Your task to perform on an android device: change notifications settings Image 0: 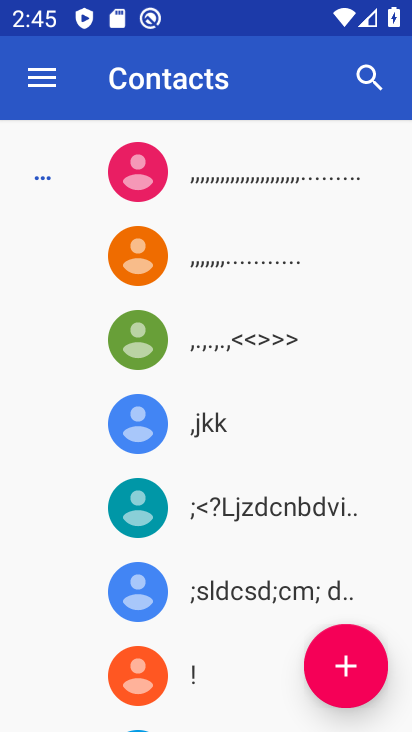
Step 0: press back button
Your task to perform on an android device: change notifications settings Image 1: 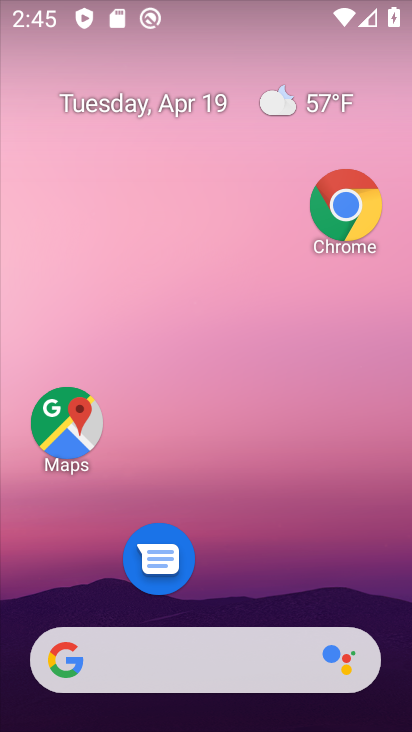
Step 1: drag from (156, 600) to (219, 249)
Your task to perform on an android device: change notifications settings Image 2: 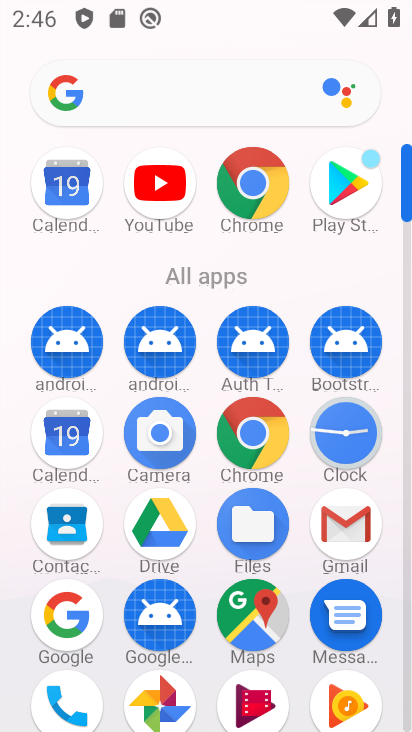
Step 2: drag from (176, 630) to (227, 279)
Your task to perform on an android device: change notifications settings Image 3: 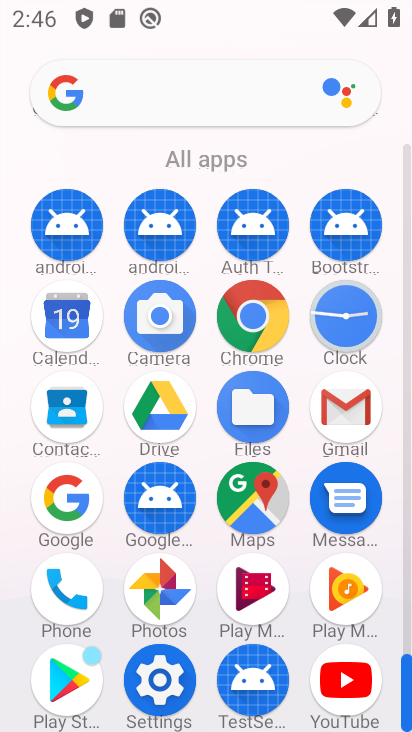
Step 3: click (163, 681)
Your task to perform on an android device: change notifications settings Image 4: 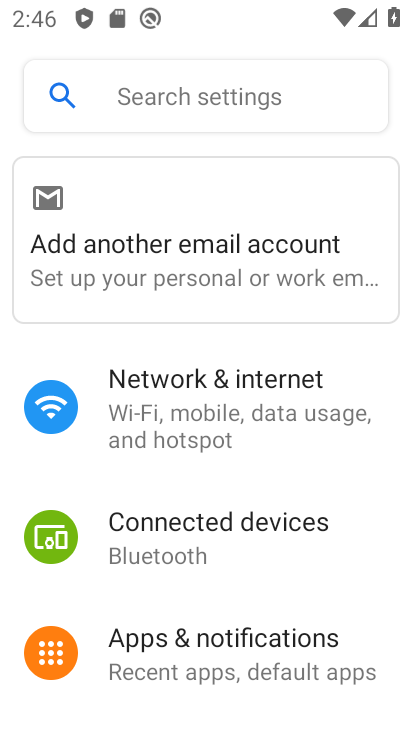
Step 4: click (228, 644)
Your task to perform on an android device: change notifications settings Image 5: 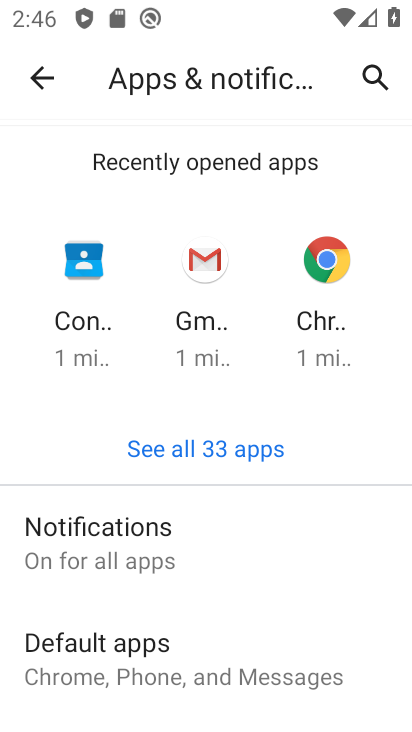
Step 5: click (158, 544)
Your task to perform on an android device: change notifications settings Image 6: 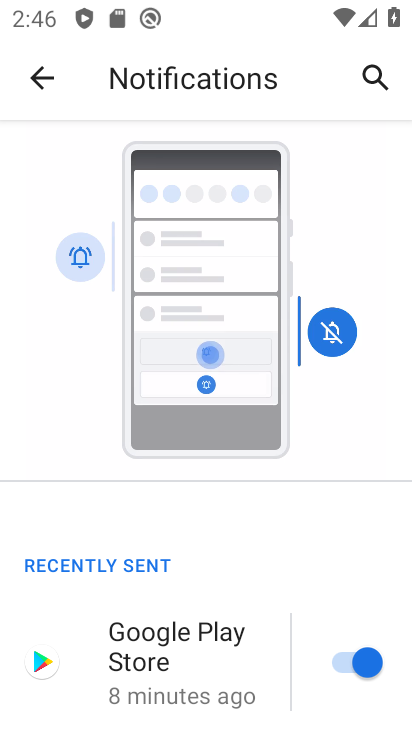
Step 6: drag from (153, 544) to (241, 85)
Your task to perform on an android device: change notifications settings Image 7: 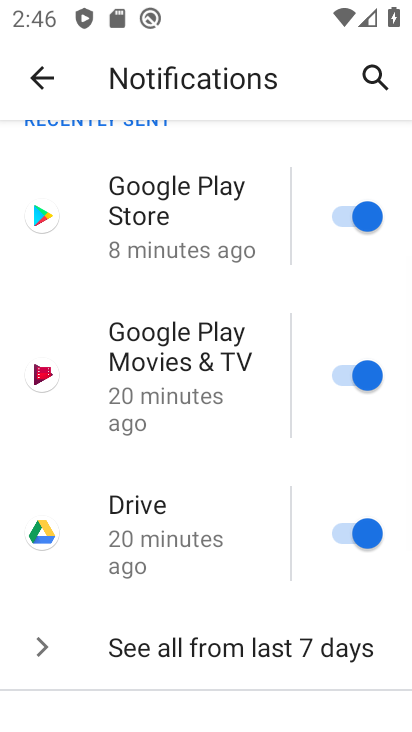
Step 7: drag from (201, 608) to (294, 211)
Your task to perform on an android device: change notifications settings Image 8: 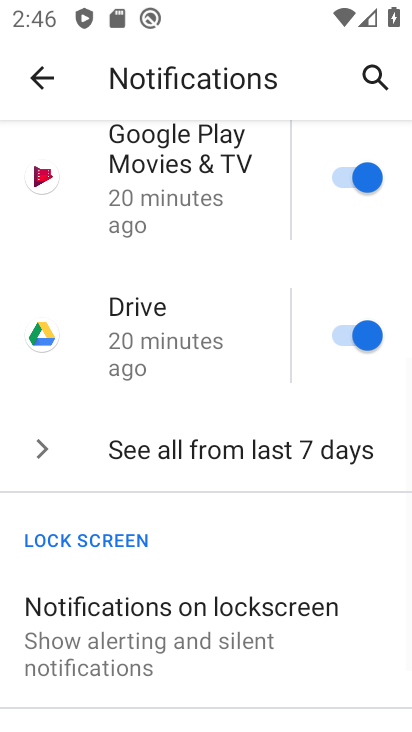
Step 8: drag from (215, 477) to (270, 290)
Your task to perform on an android device: change notifications settings Image 9: 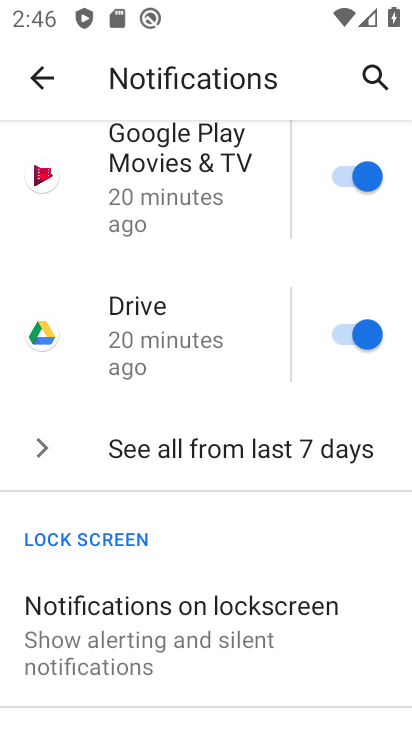
Step 9: drag from (172, 665) to (297, 185)
Your task to perform on an android device: change notifications settings Image 10: 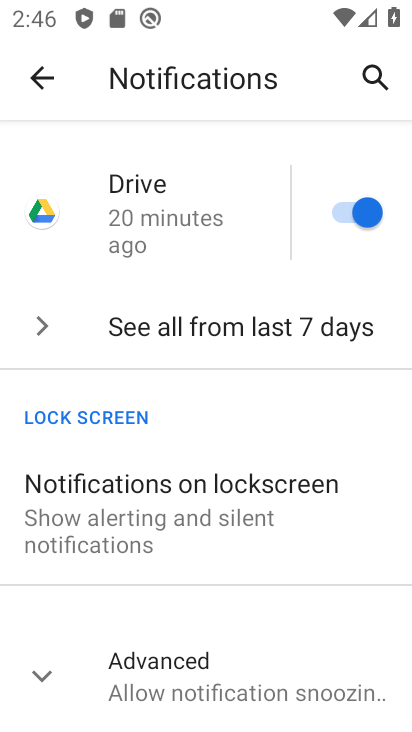
Step 10: click (47, 666)
Your task to perform on an android device: change notifications settings Image 11: 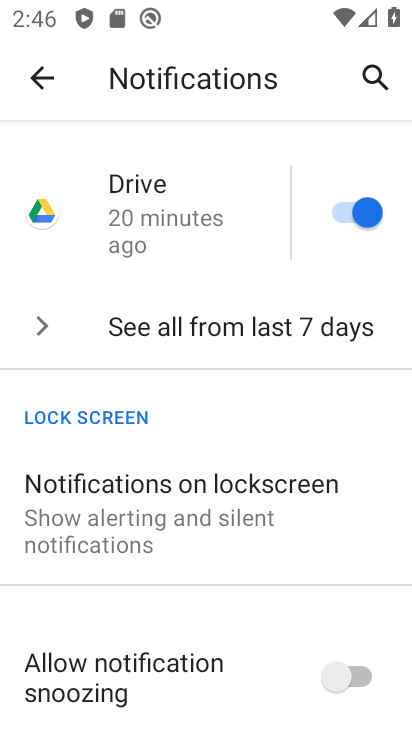
Step 11: drag from (194, 634) to (264, 346)
Your task to perform on an android device: change notifications settings Image 12: 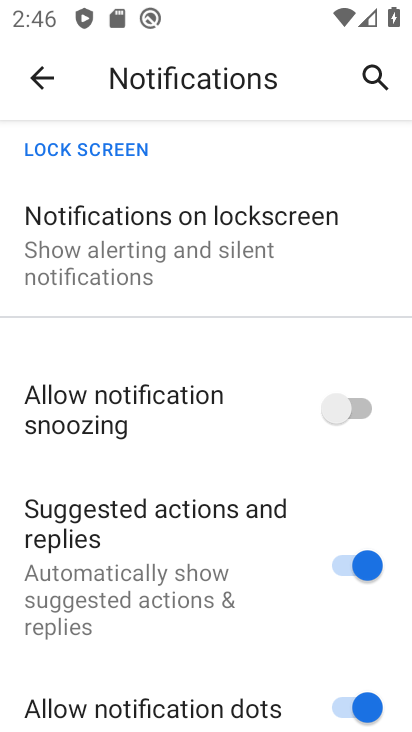
Step 12: click (348, 431)
Your task to perform on an android device: change notifications settings Image 13: 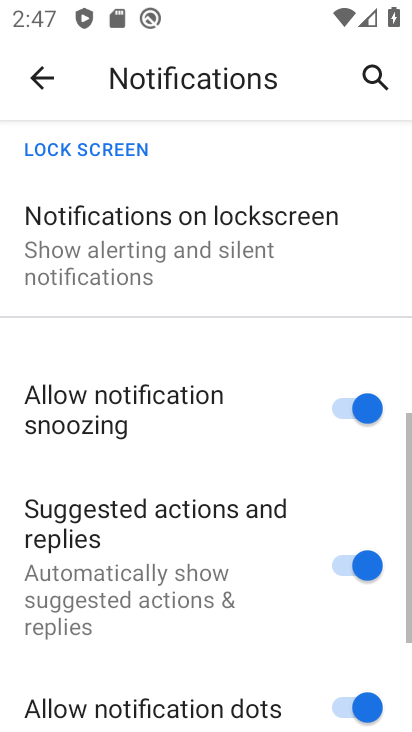
Step 13: task complete